Your task to perform on an android device: turn off picture-in-picture Image 0: 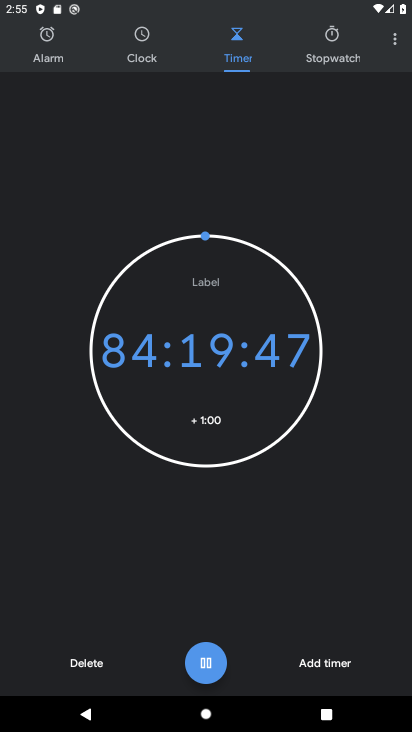
Step 0: press home button
Your task to perform on an android device: turn off picture-in-picture Image 1: 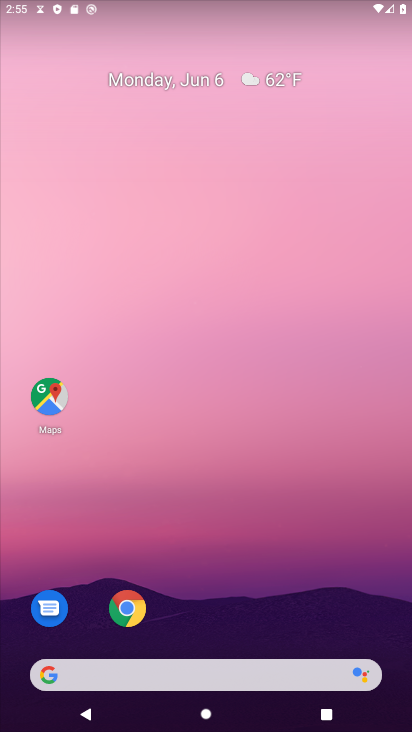
Step 1: click (132, 600)
Your task to perform on an android device: turn off picture-in-picture Image 2: 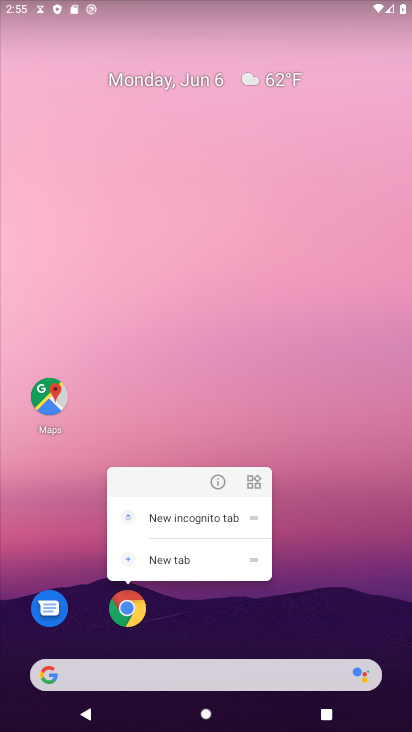
Step 2: click (218, 487)
Your task to perform on an android device: turn off picture-in-picture Image 3: 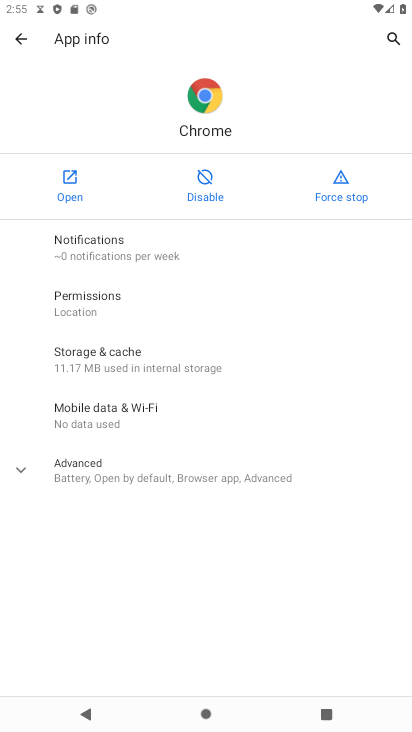
Step 3: click (142, 476)
Your task to perform on an android device: turn off picture-in-picture Image 4: 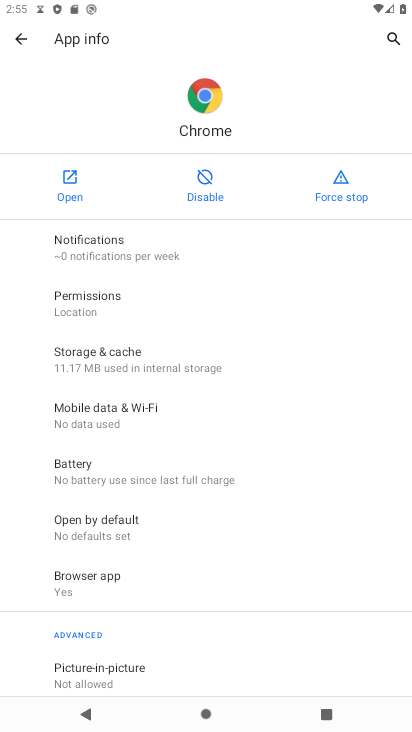
Step 4: click (89, 659)
Your task to perform on an android device: turn off picture-in-picture Image 5: 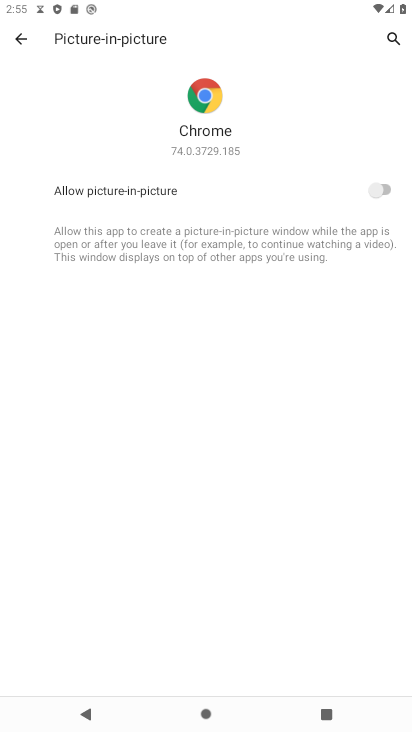
Step 5: task complete